Your task to perform on an android device: set the stopwatch Image 0: 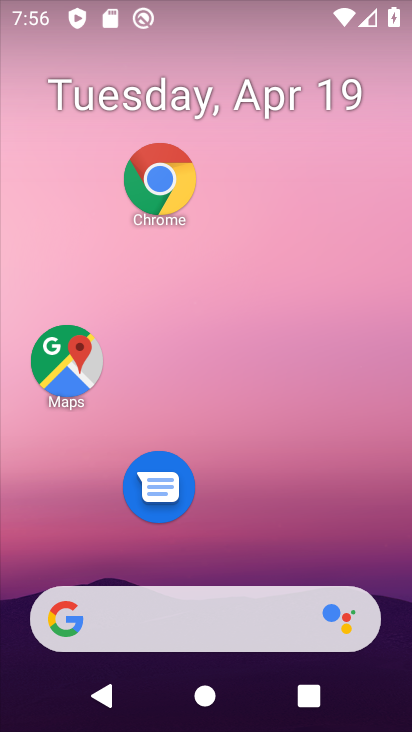
Step 0: drag from (233, 693) to (68, 182)
Your task to perform on an android device: set the stopwatch Image 1: 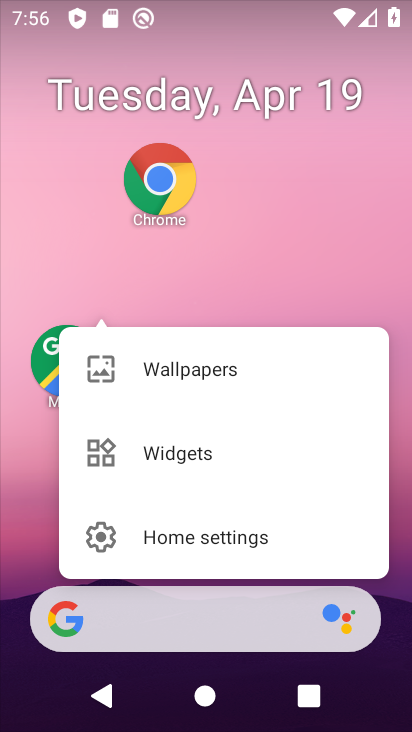
Step 1: click (249, 254)
Your task to perform on an android device: set the stopwatch Image 2: 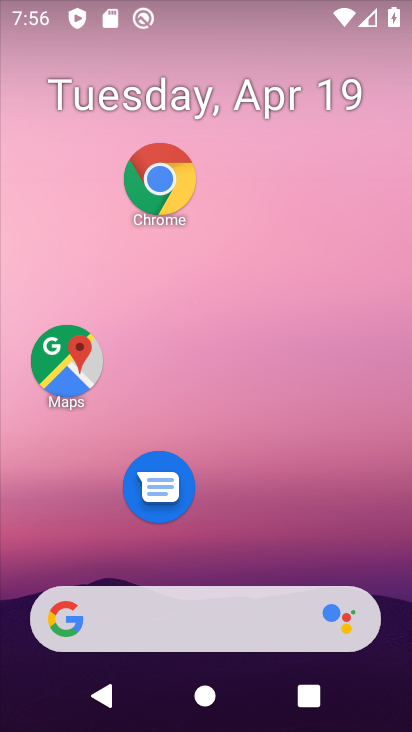
Step 2: drag from (266, 490) to (215, 302)
Your task to perform on an android device: set the stopwatch Image 3: 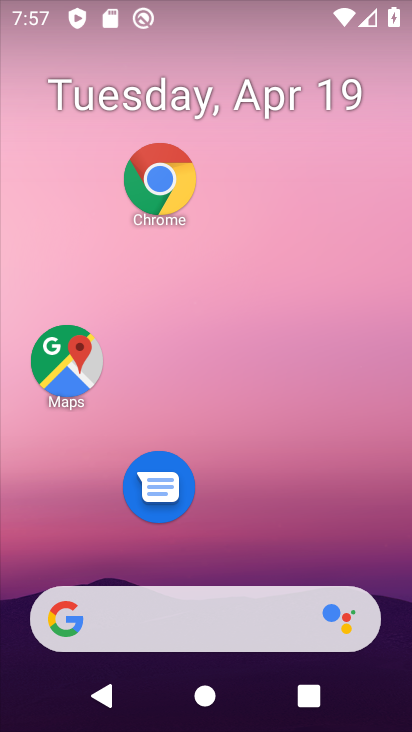
Step 3: drag from (192, 354) to (163, 119)
Your task to perform on an android device: set the stopwatch Image 4: 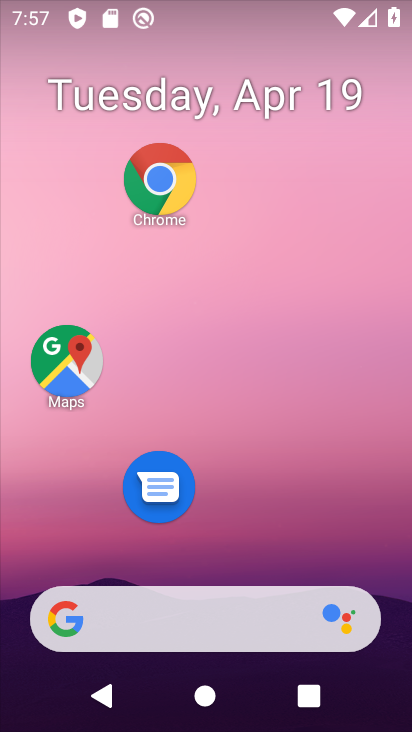
Step 4: drag from (291, 586) to (214, 63)
Your task to perform on an android device: set the stopwatch Image 5: 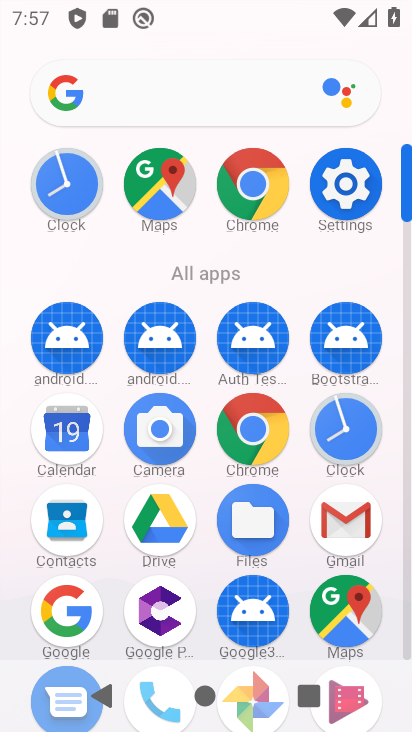
Step 5: click (339, 440)
Your task to perform on an android device: set the stopwatch Image 6: 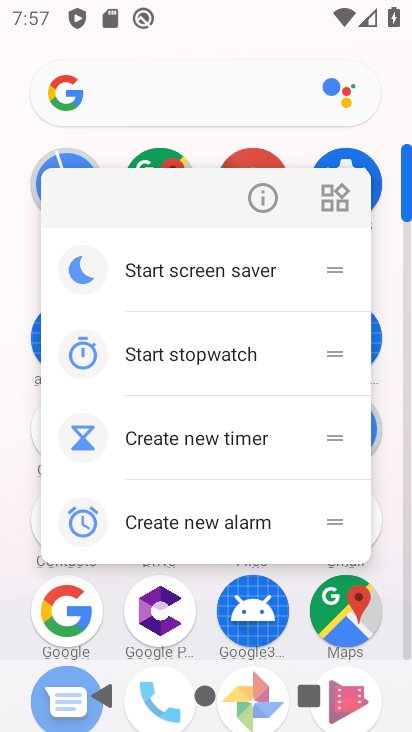
Step 6: click (391, 290)
Your task to perform on an android device: set the stopwatch Image 7: 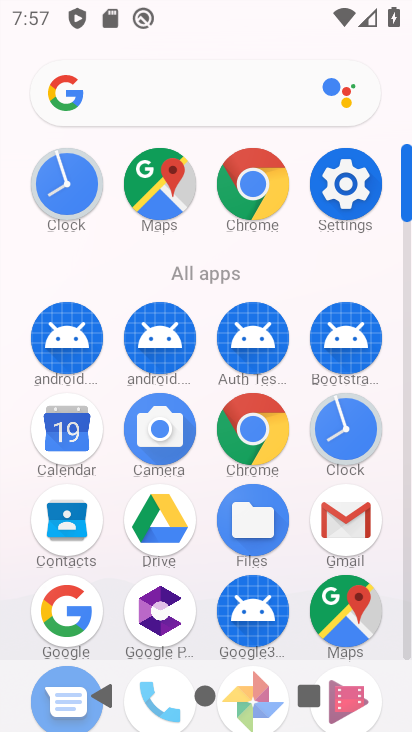
Step 7: click (339, 431)
Your task to perform on an android device: set the stopwatch Image 8: 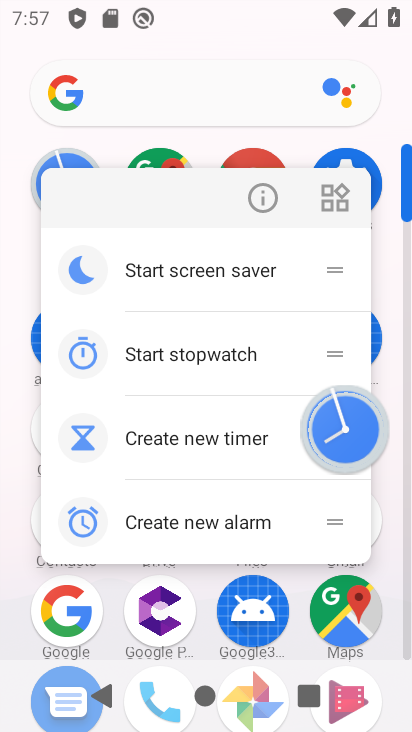
Step 8: click (336, 428)
Your task to perform on an android device: set the stopwatch Image 9: 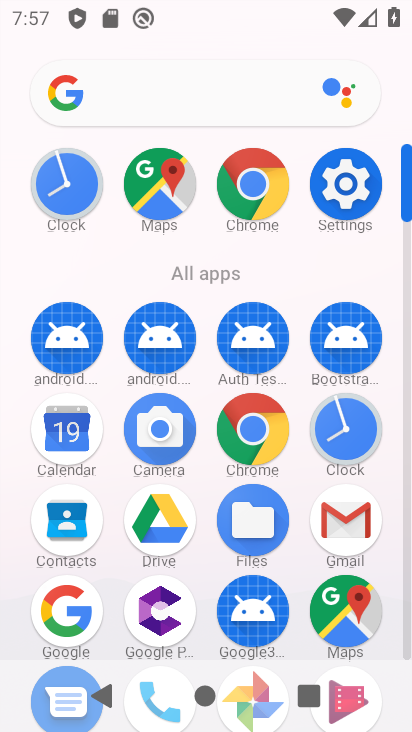
Step 9: click (338, 424)
Your task to perform on an android device: set the stopwatch Image 10: 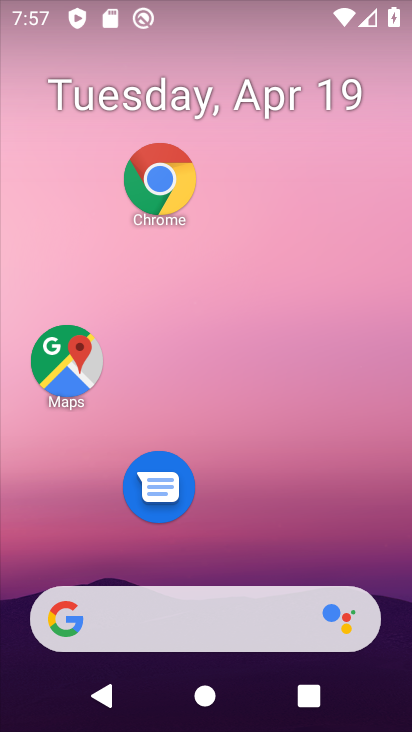
Step 10: click (357, 421)
Your task to perform on an android device: set the stopwatch Image 11: 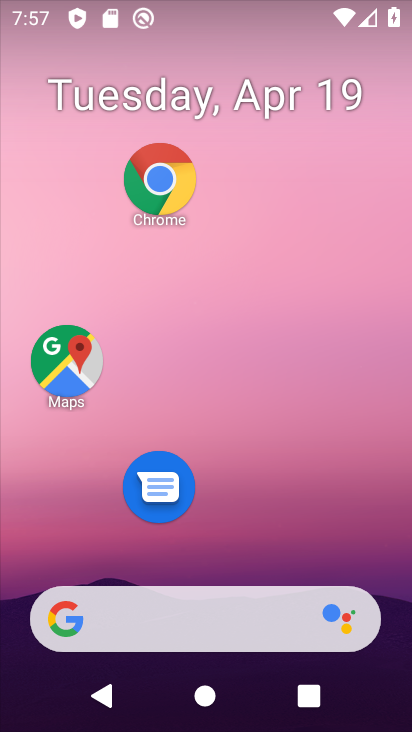
Step 11: drag from (289, 593) to (244, 73)
Your task to perform on an android device: set the stopwatch Image 12: 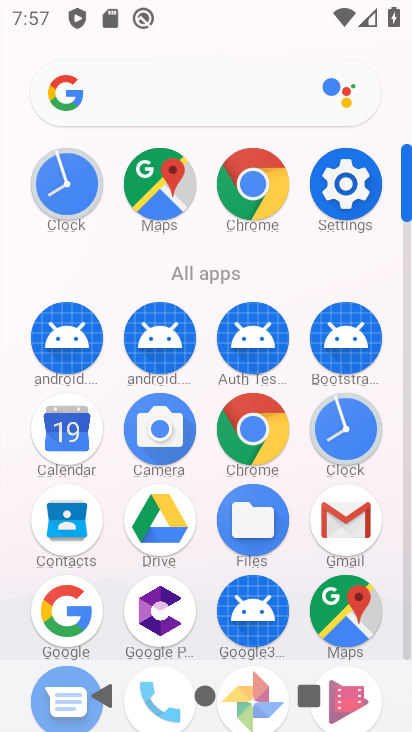
Step 12: click (355, 431)
Your task to perform on an android device: set the stopwatch Image 13: 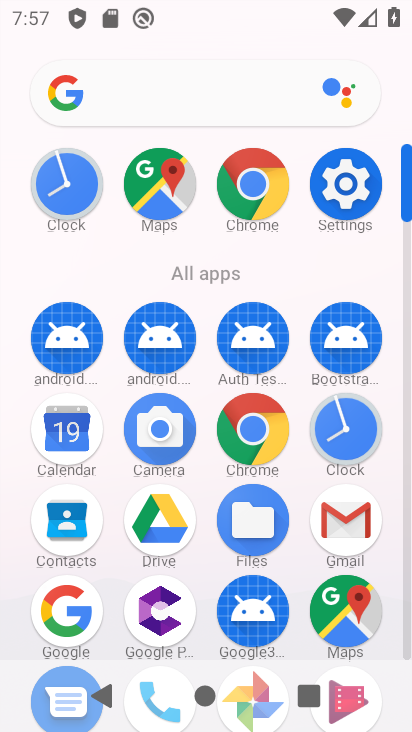
Step 13: click (349, 424)
Your task to perform on an android device: set the stopwatch Image 14: 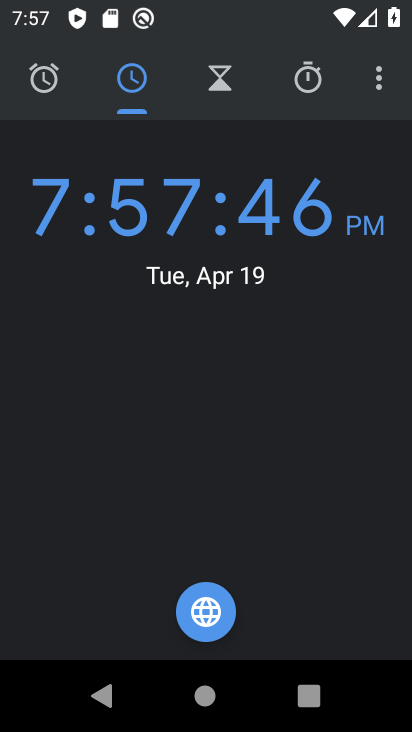
Step 14: click (376, 79)
Your task to perform on an android device: set the stopwatch Image 15: 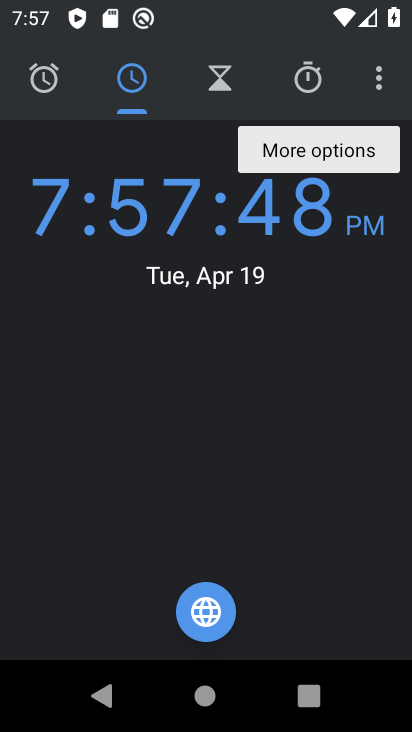
Step 15: click (353, 151)
Your task to perform on an android device: set the stopwatch Image 16: 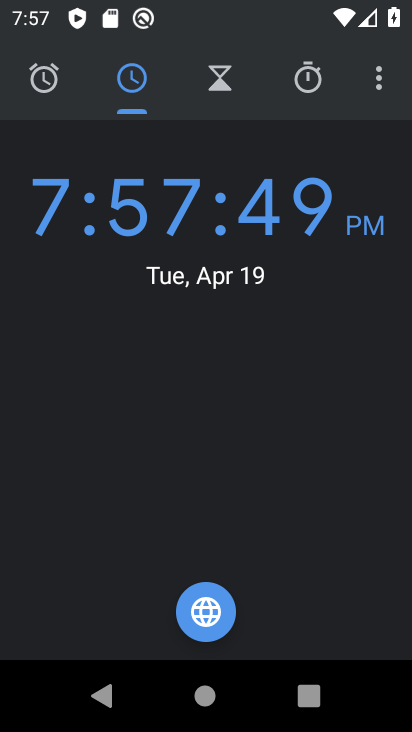
Step 16: click (377, 74)
Your task to perform on an android device: set the stopwatch Image 17: 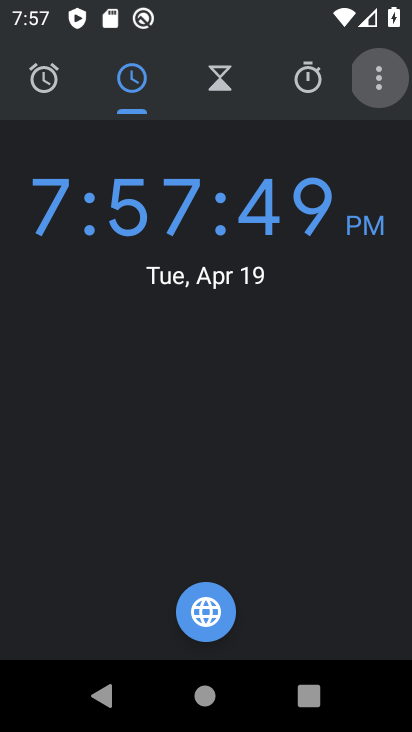
Step 17: click (377, 74)
Your task to perform on an android device: set the stopwatch Image 18: 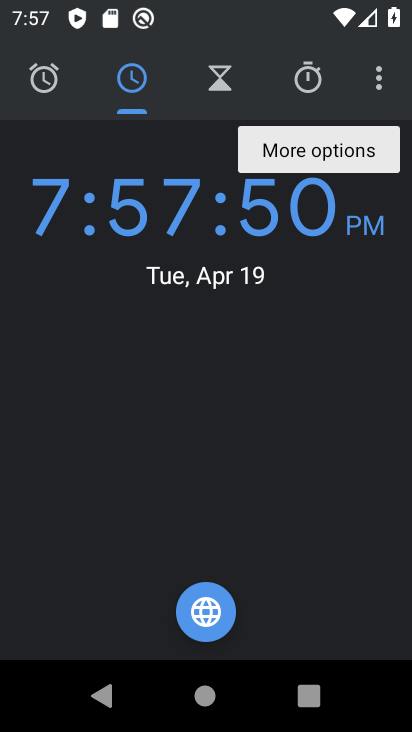
Step 18: click (377, 74)
Your task to perform on an android device: set the stopwatch Image 19: 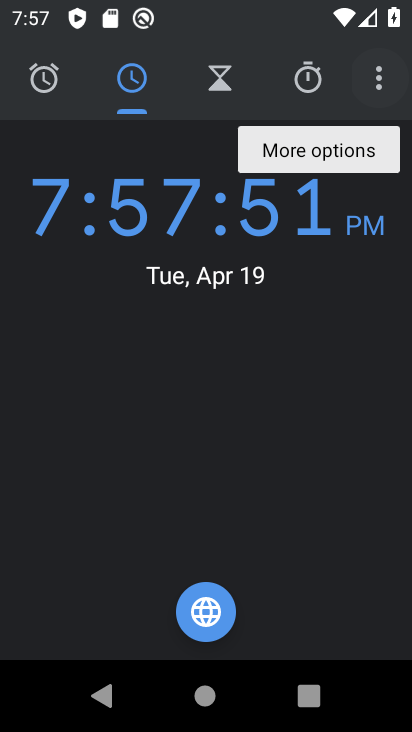
Step 19: click (377, 74)
Your task to perform on an android device: set the stopwatch Image 20: 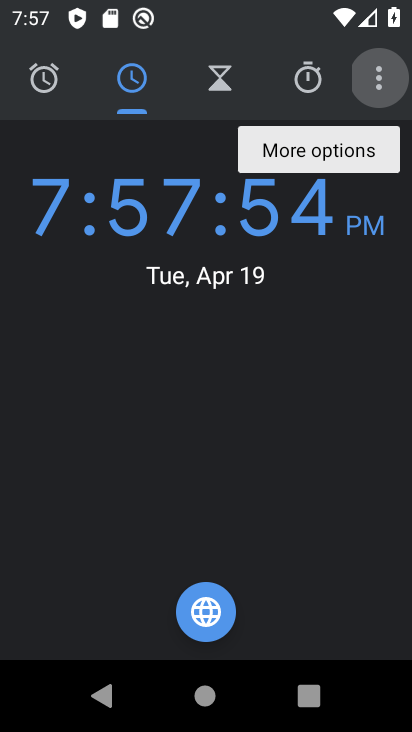
Step 20: click (377, 74)
Your task to perform on an android device: set the stopwatch Image 21: 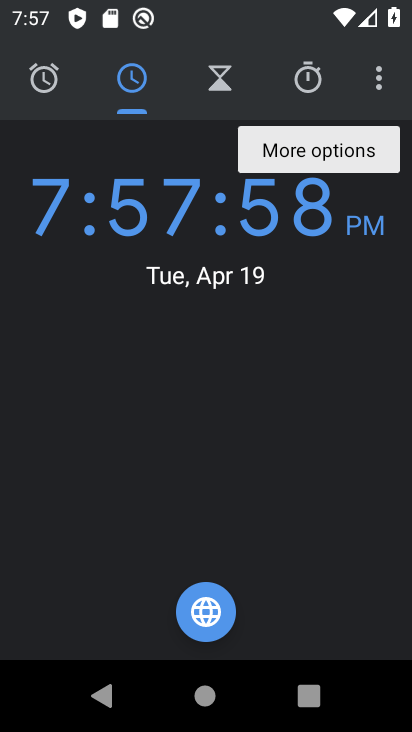
Step 21: click (377, 83)
Your task to perform on an android device: set the stopwatch Image 22: 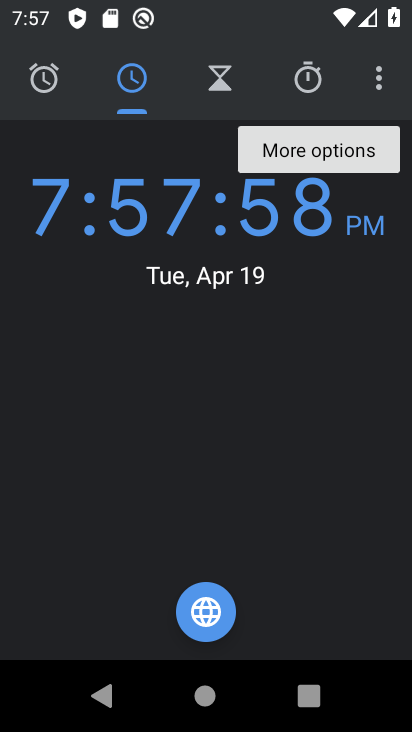
Step 22: click (379, 81)
Your task to perform on an android device: set the stopwatch Image 23: 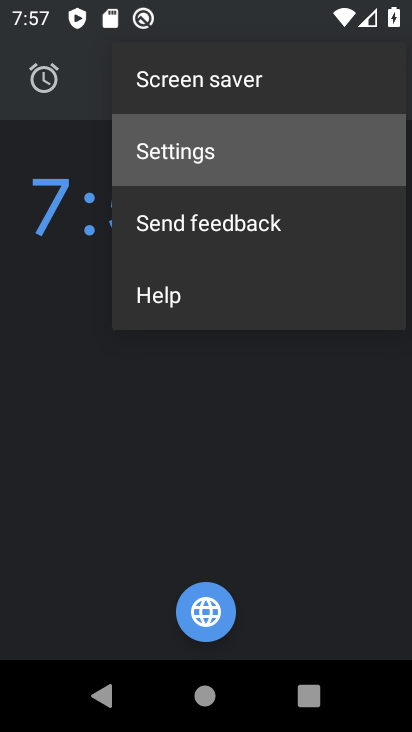
Step 23: click (382, 83)
Your task to perform on an android device: set the stopwatch Image 24: 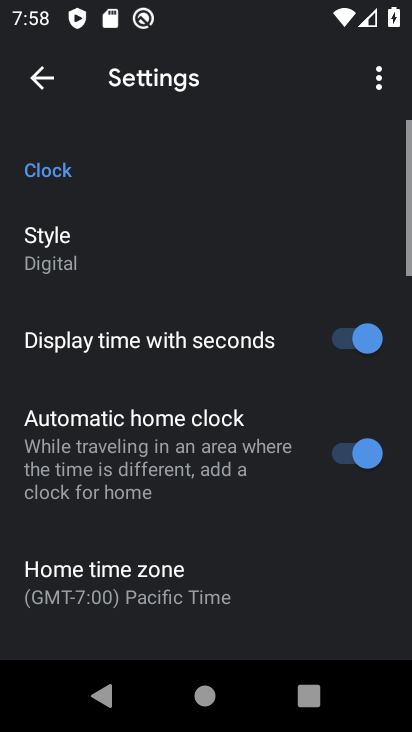
Step 24: click (182, 156)
Your task to perform on an android device: set the stopwatch Image 25: 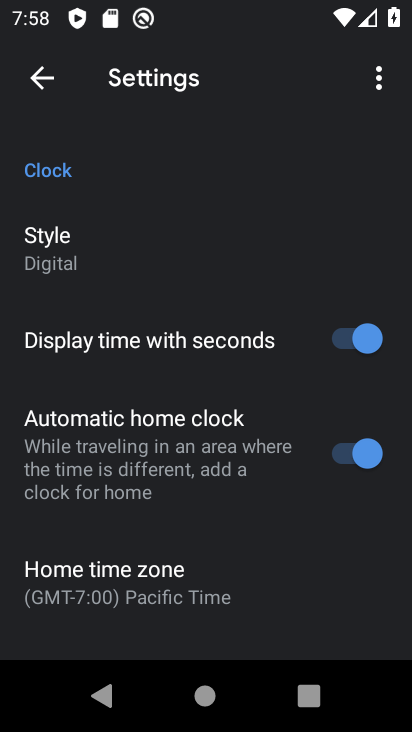
Step 25: click (38, 82)
Your task to perform on an android device: set the stopwatch Image 26: 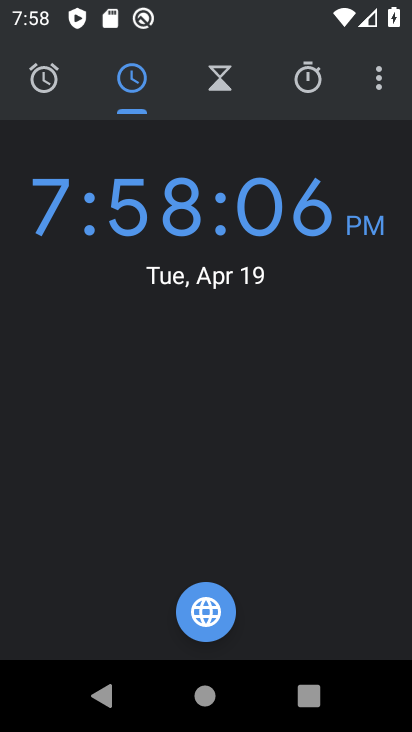
Step 26: click (311, 77)
Your task to perform on an android device: set the stopwatch Image 27: 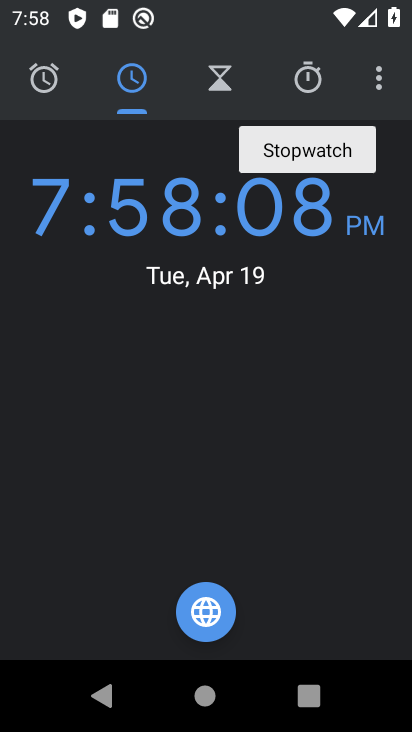
Step 27: click (313, 150)
Your task to perform on an android device: set the stopwatch Image 28: 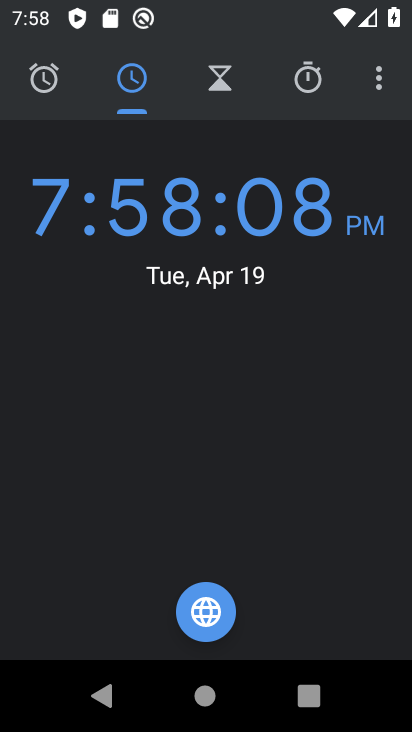
Step 28: click (313, 150)
Your task to perform on an android device: set the stopwatch Image 29: 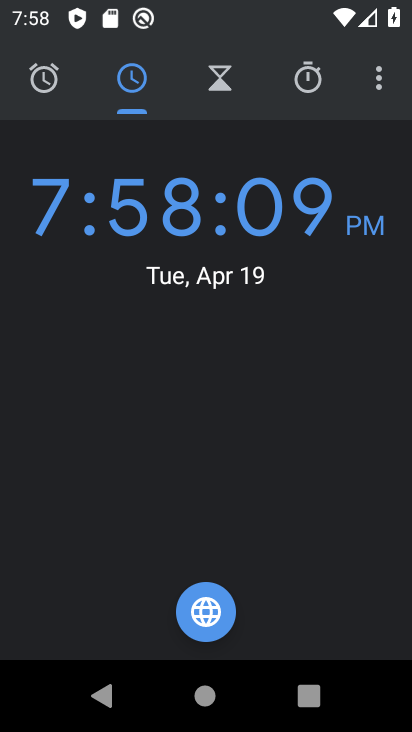
Step 29: click (306, 79)
Your task to perform on an android device: set the stopwatch Image 30: 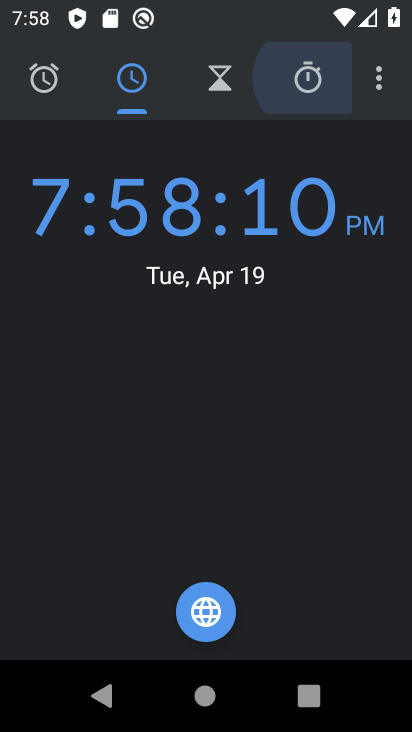
Step 30: click (306, 79)
Your task to perform on an android device: set the stopwatch Image 31: 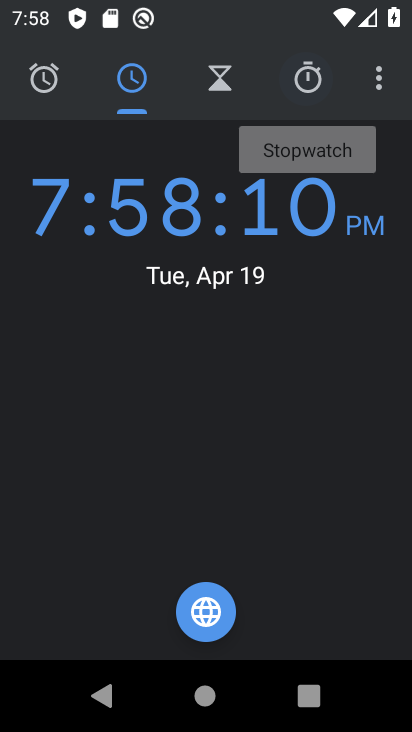
Step 31: click (306, 79)
Your task to perform on an android device: set the stopwatch Image 32: 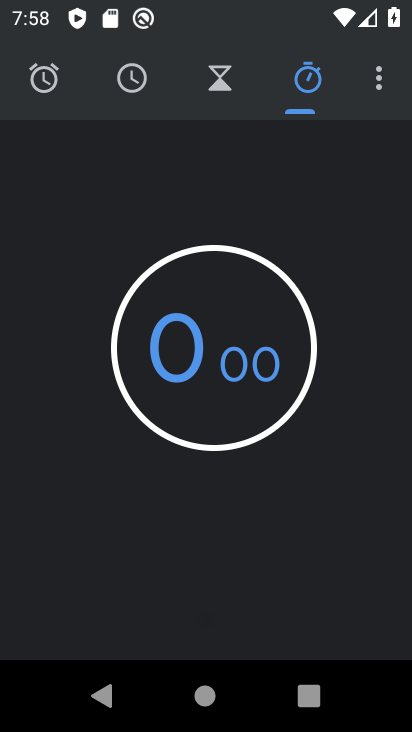
Step 32: click (305, 80)
Your task to perform on an android device: set the stopwatch Image 33: 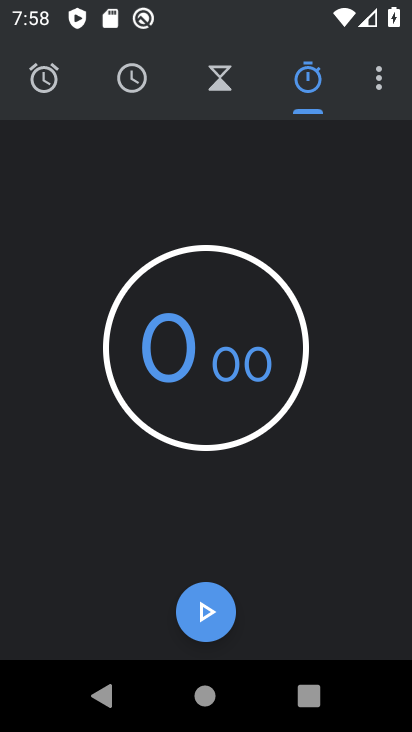
Step 33: click (210, 602)
Your task to perform on an android device: set the stopwatch Image 34: 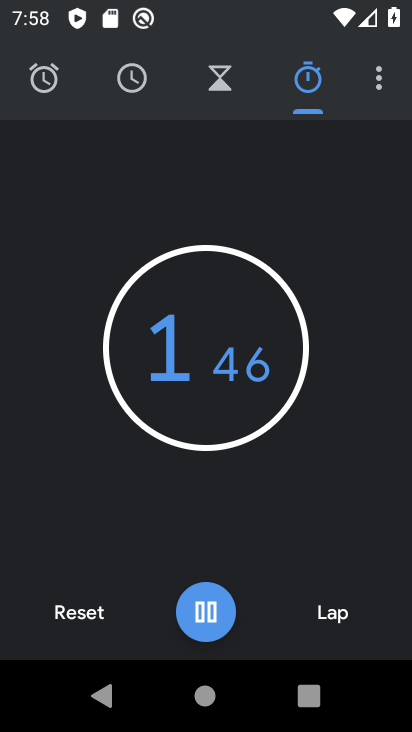
Step 34: click (198, 597)
Your task to perform on an android device: set the stopwatch Image 35: 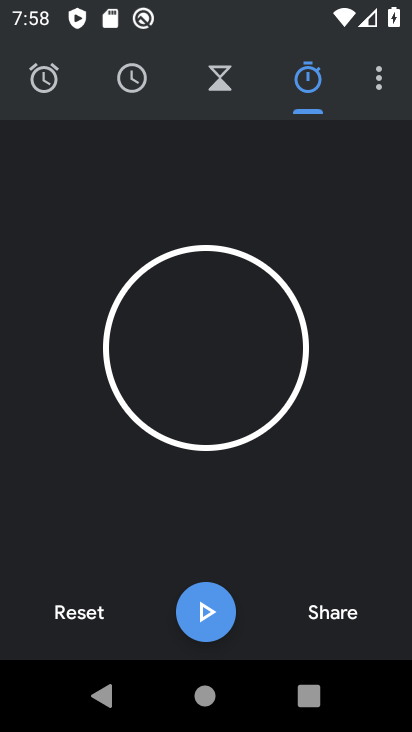
Step 35: click (196, 602)
Your task to perform on an android device: set the stopwatch Image 36: 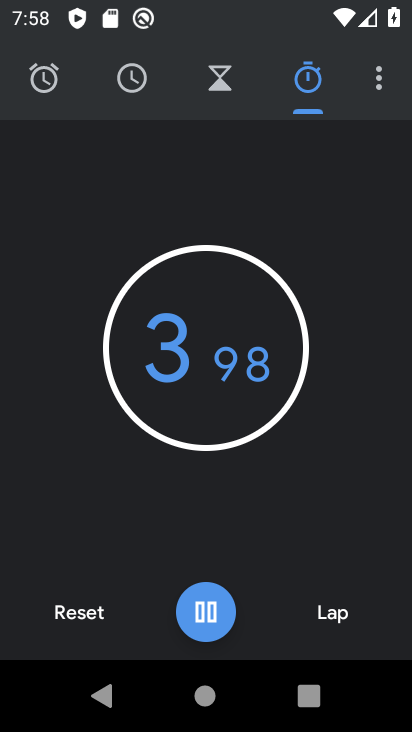
Step 36: task complete